Your task to perform on an android device: read, delete, or share a saved page in the chrome app Image 0: 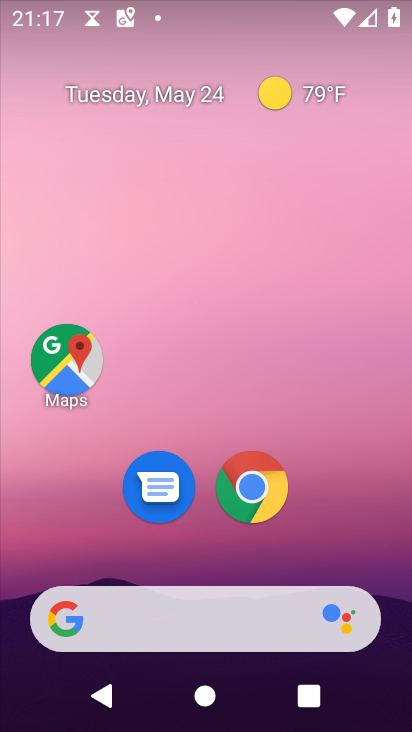
Step 0: click (266, 501)
Your task to perform on an android device: read, delete, or share a saved page in the chrome app Image 1: 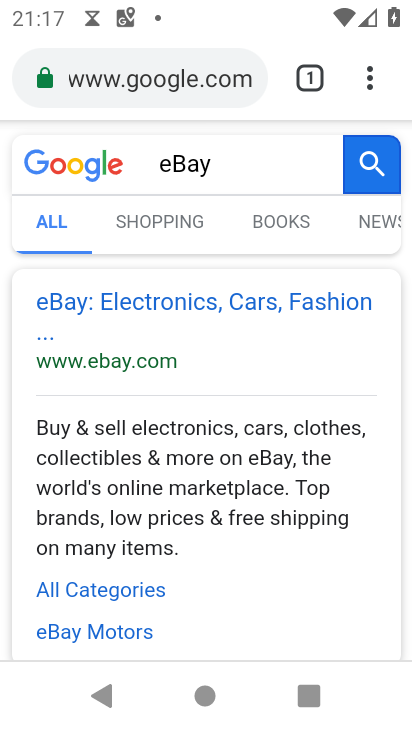
Step 1: drag from (369, 74) to (44, 520)
Your task to perform on an android device: read, delete, or share a saved page in the chrome app Image 2: 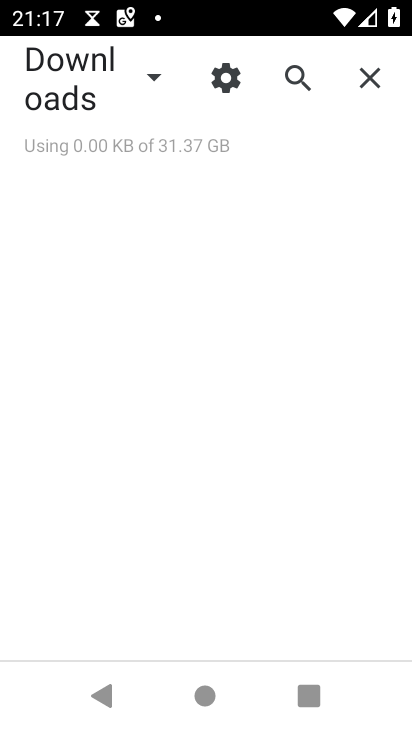
Step 2: click (141, 70)
Your task to perform on an android device: read, delete, or share a saved page in the chrome app Image 3: 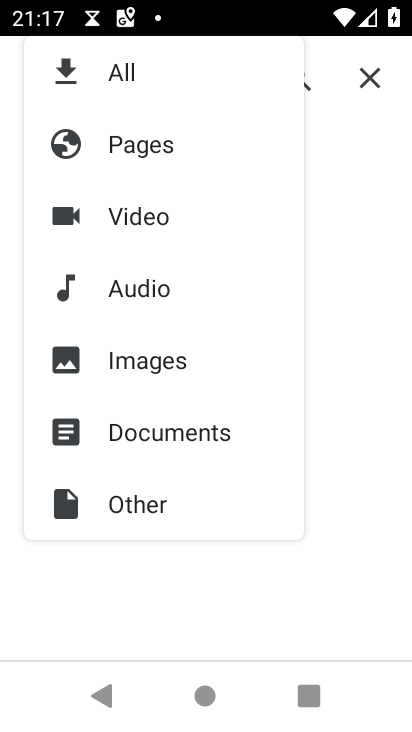
Step 3: click (93, 161)
Your task to perform on an android device: read, delete, or share a saved page in the chrome app Image 4: 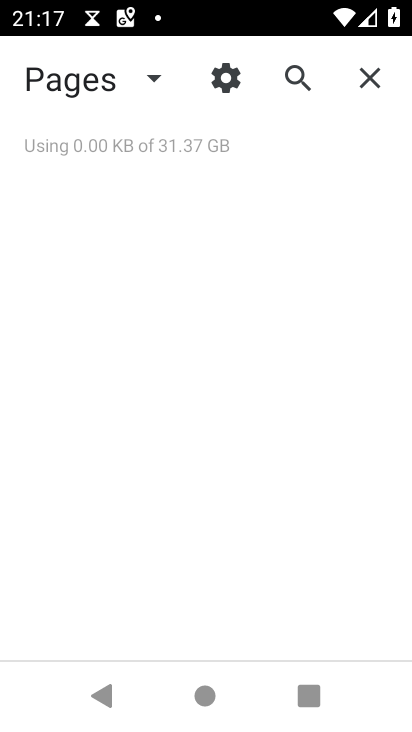
Step 4: click (154, 81)
Your task to perform on an android device: read, delete, or share a saved page in the chrome app Image 5: 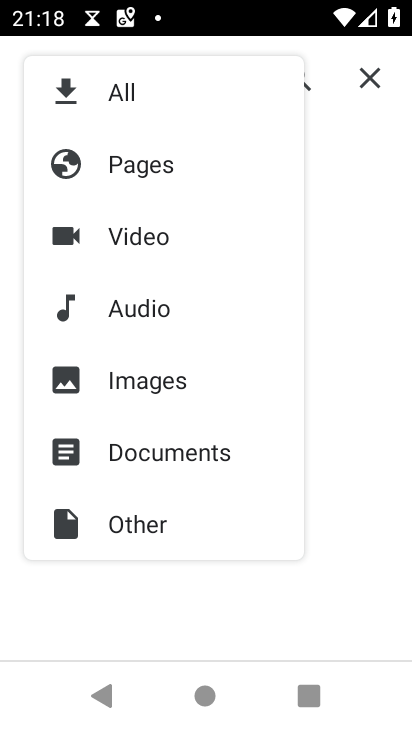
Step 5: task complete